Your task to perform on an android device: Go to sound settings Image 0: 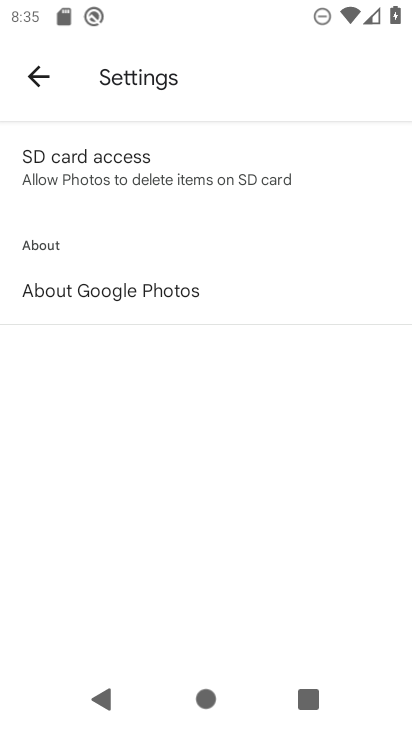
Step 0: press home button
Your task to perform on an android device: Go to sound settings Image 1: 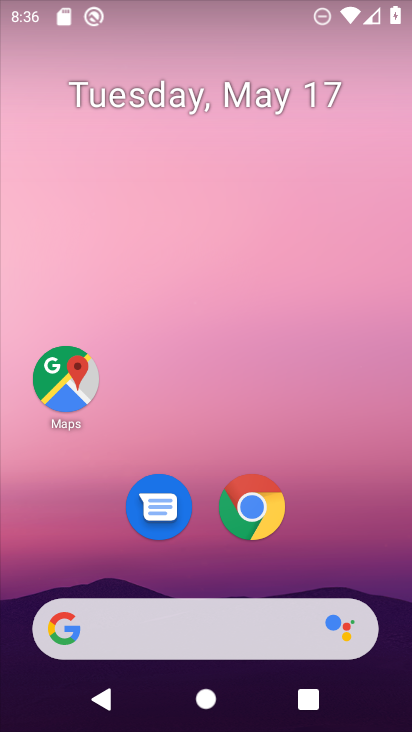
Step 1: drag from (353, 536) to (288, 2)
Your task to perform on an android device: Go to sound settings Image 2: 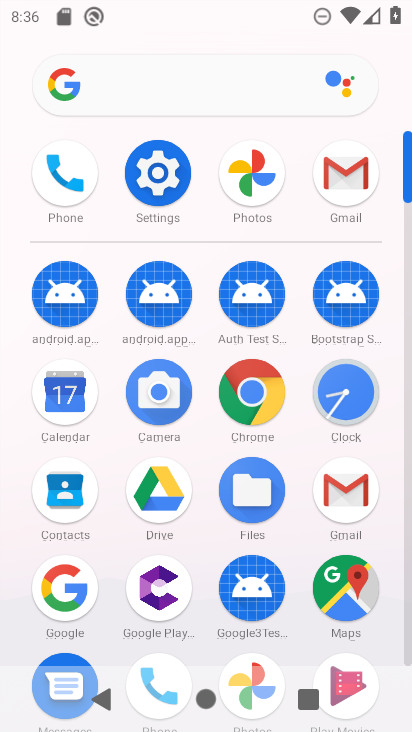
Step 2: click (154, 184)
Your task to perform on an android device: Go to sound settings Image 3: 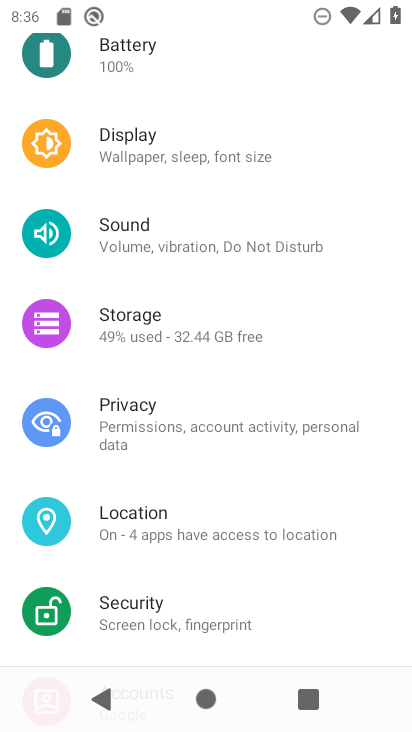
Step 3: click (132, 247)
Your task to perform on an android device: Go to sound settings Image 4: 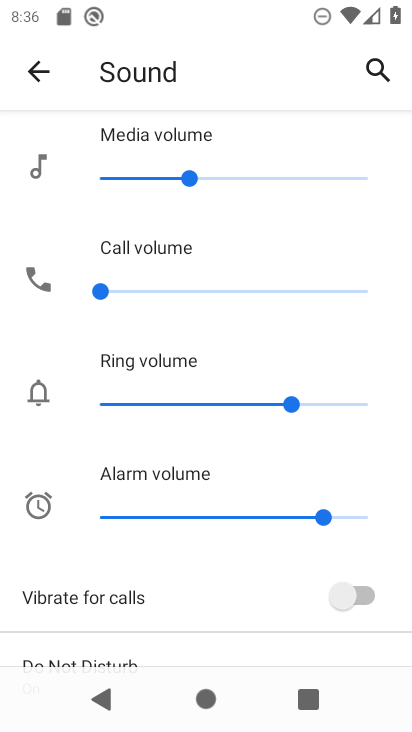
Step 4: task complete